Your task to perform on an android device: Clear all items from cart on target.com. Add "macbook pro 13 inch" to the cart on target.com Image 0: 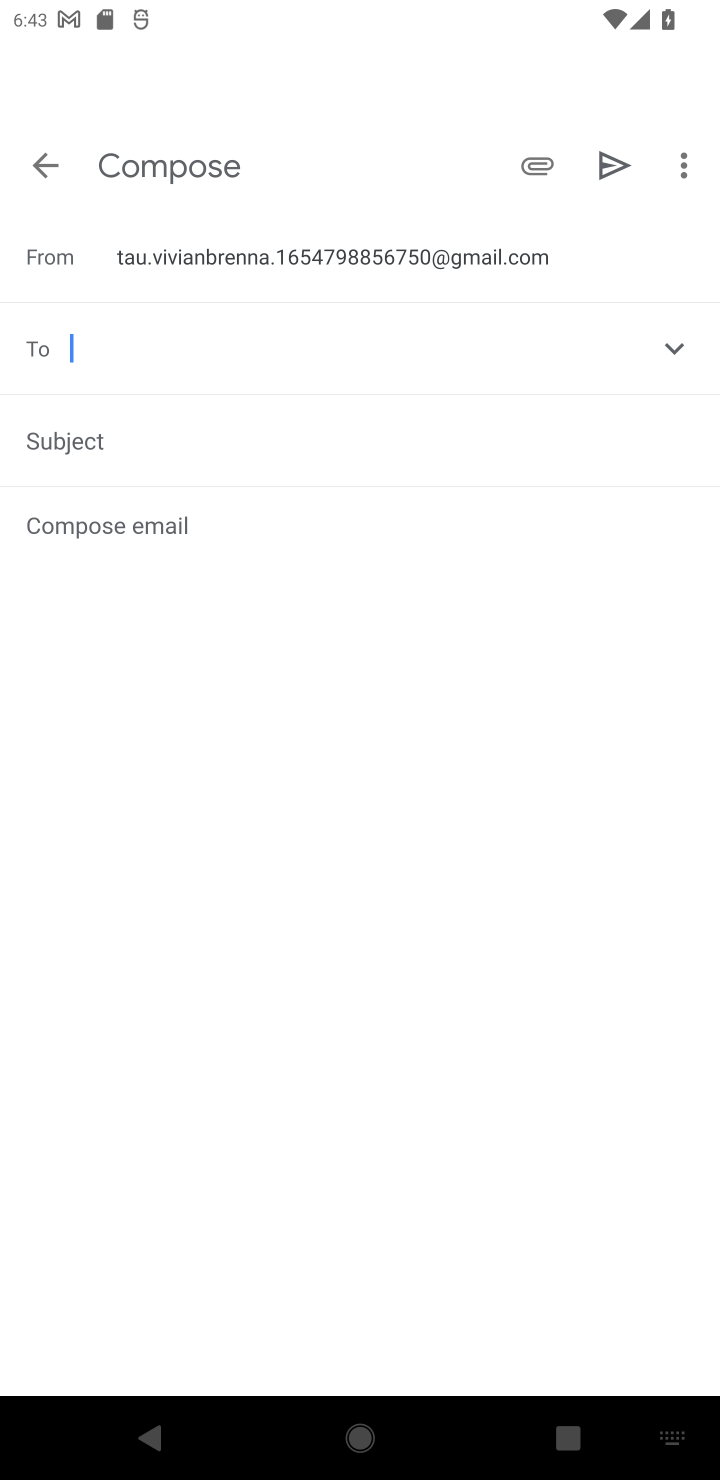
Step 0: press home button
Your task to perform on an android device: Clear all items from cart on target.com. Add "macbook pro 13 inch" to the cart on target.com Image 1: 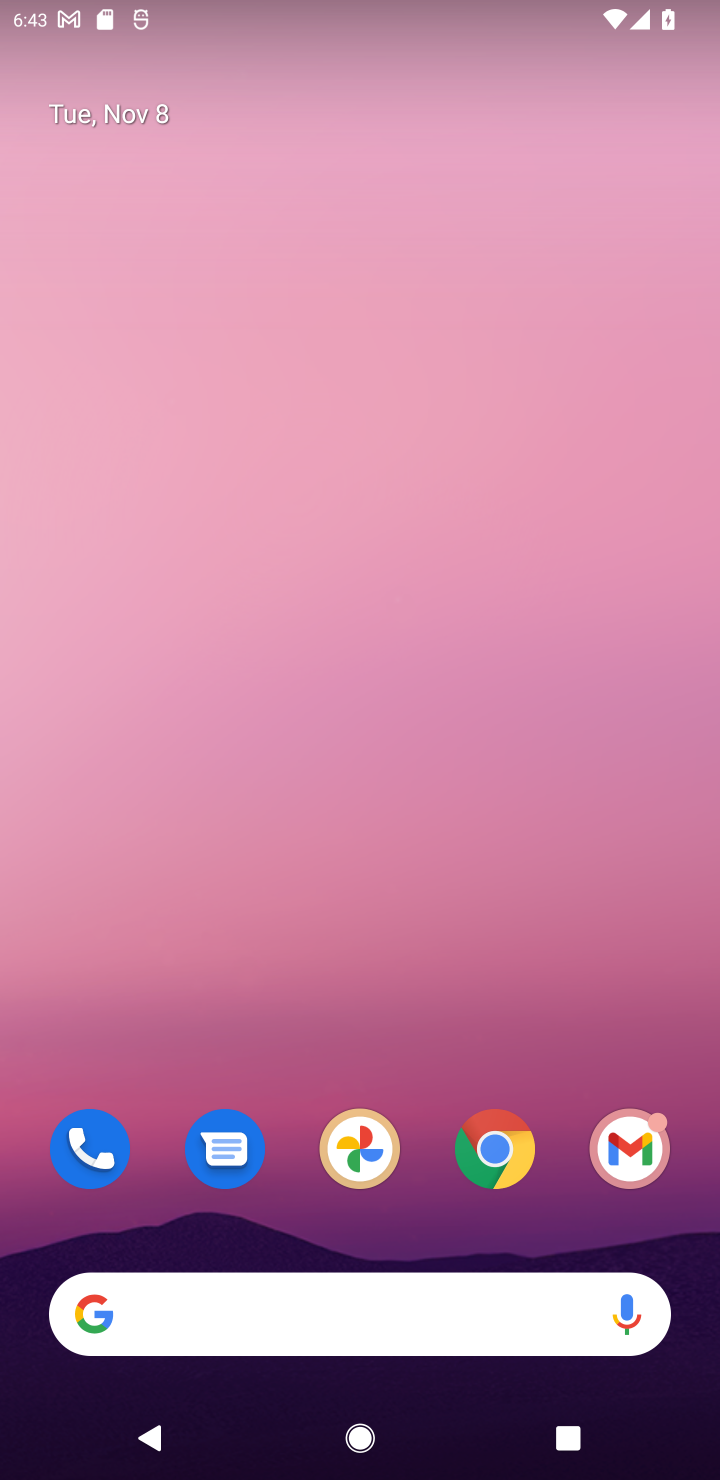
Step 1: click (500, 1153)
Your task to perform on an android device: Clear all items from cart on target.com. Add "macbook pro 13 inch" to the cart on target.com Image 2: 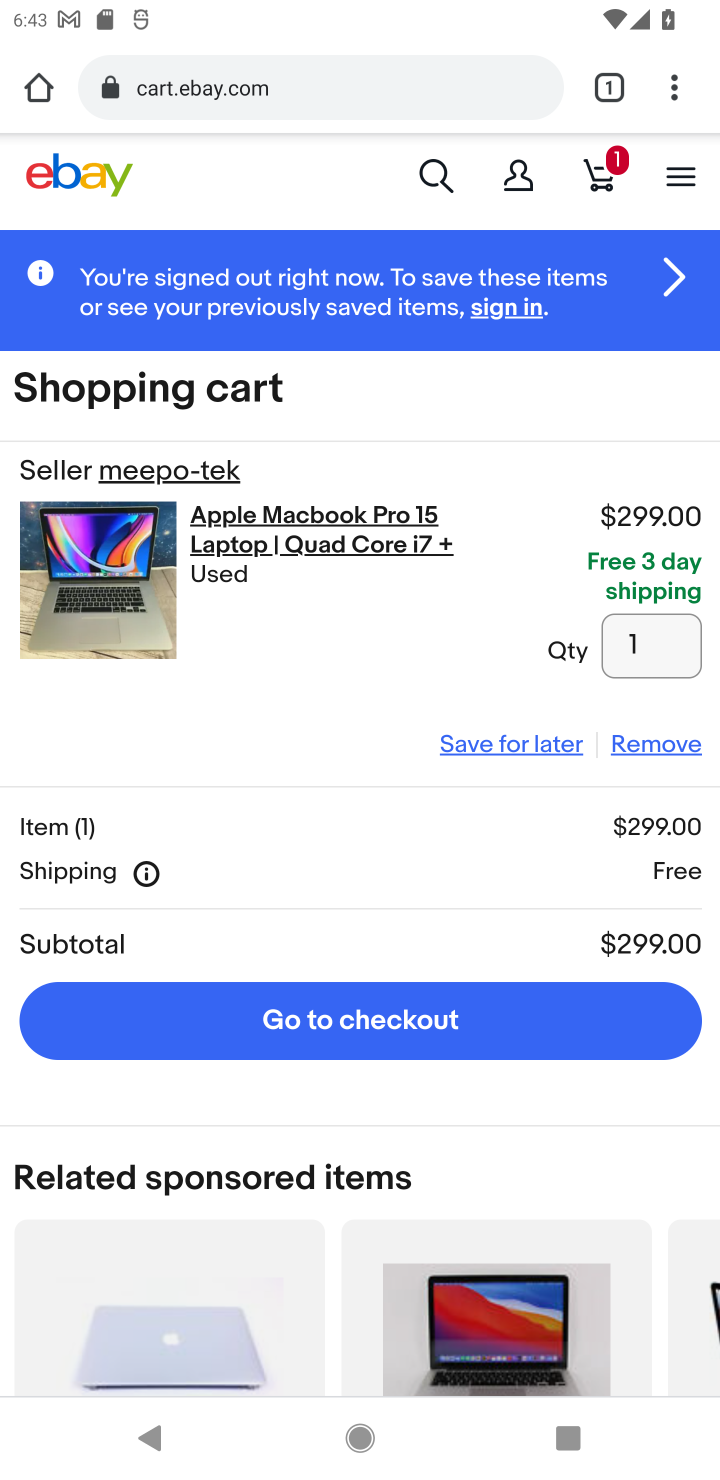
Step 2: click (468, 80)
Your task to perform on an android device: Clear all items from cart on target.com. Add "macbook pro 13 inch" to the cart on target.com Image 3: 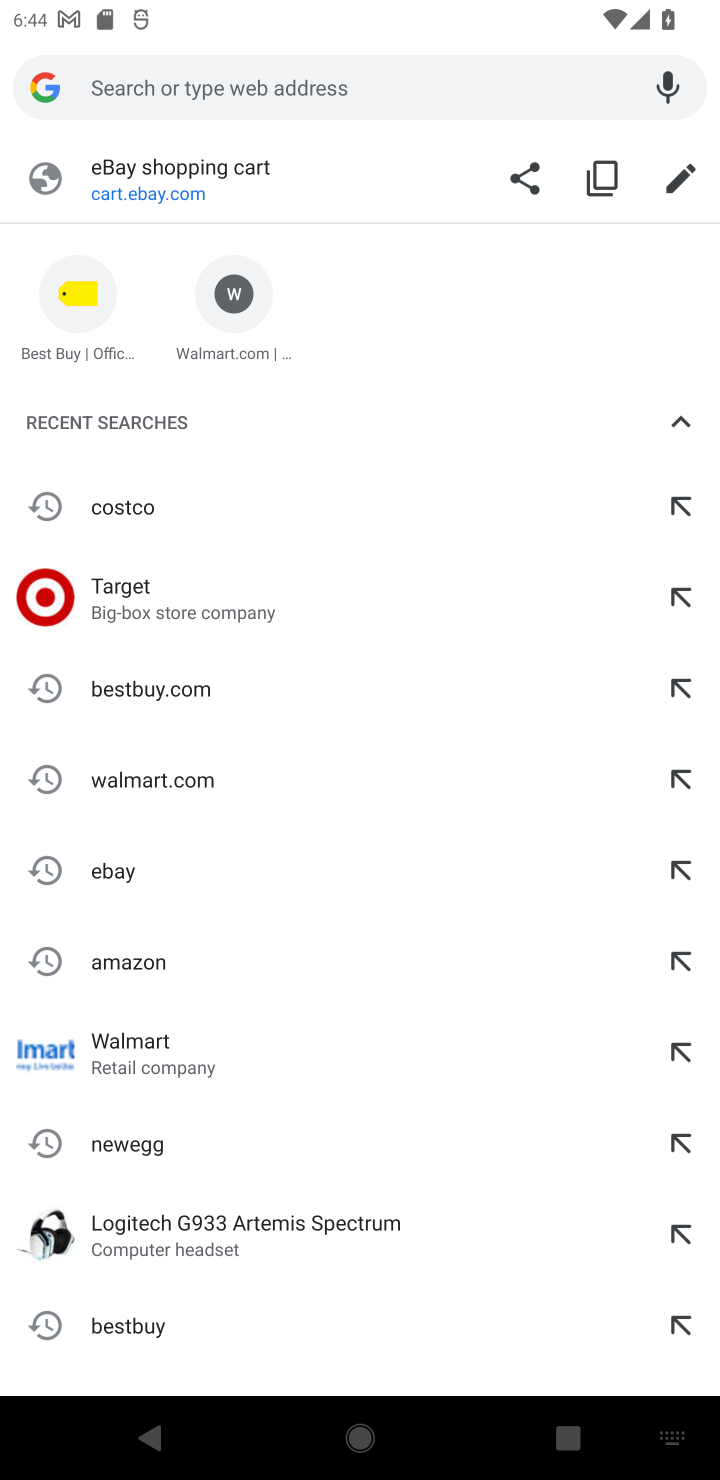
Step 3: type "target.com"
Your task to perform on an android device: Clear all items from cart on target.com. Add "macbook pro 13 inch" to the cart on target.com Image 4: 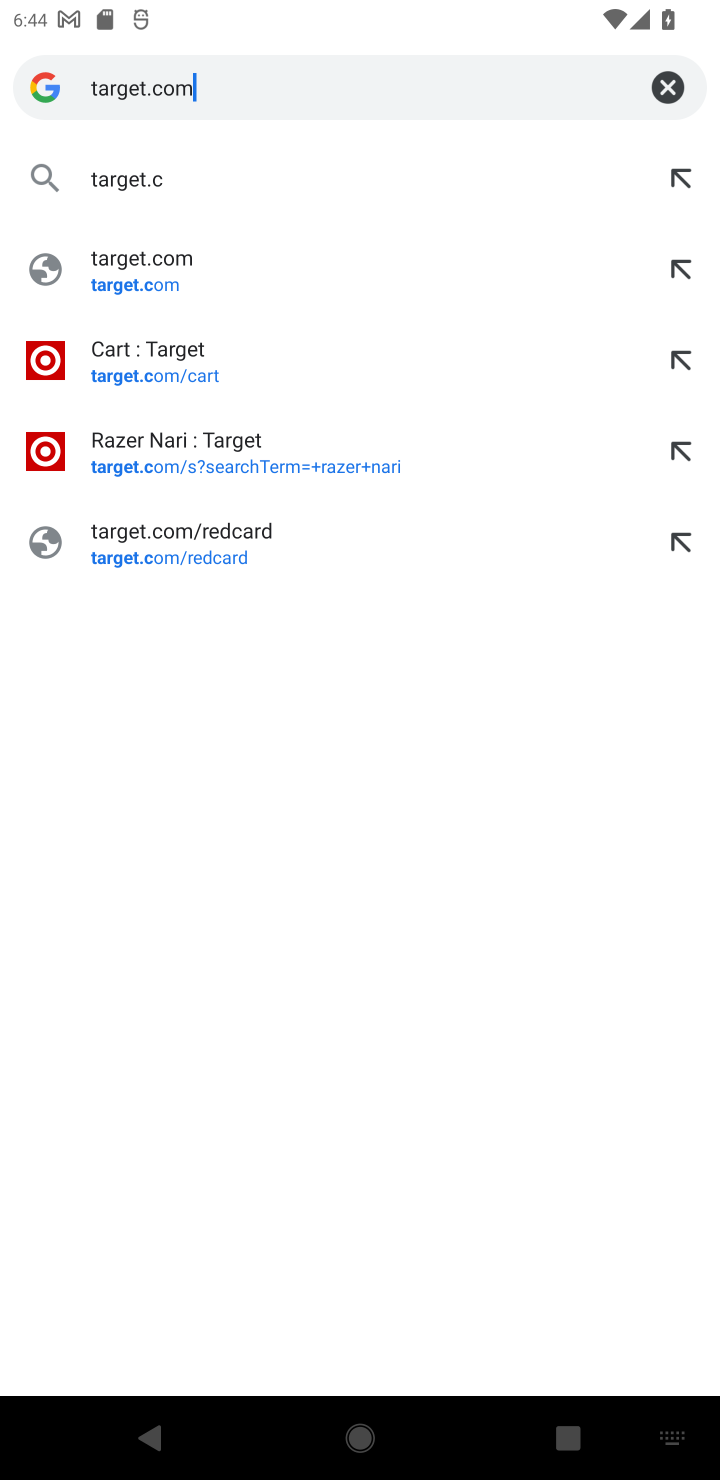
Step 4: press enter
Your task to perform on an android device: Clear all items from cart on target.com. Add "macbook pro 13 inch" to the cart on target.com Image 5: 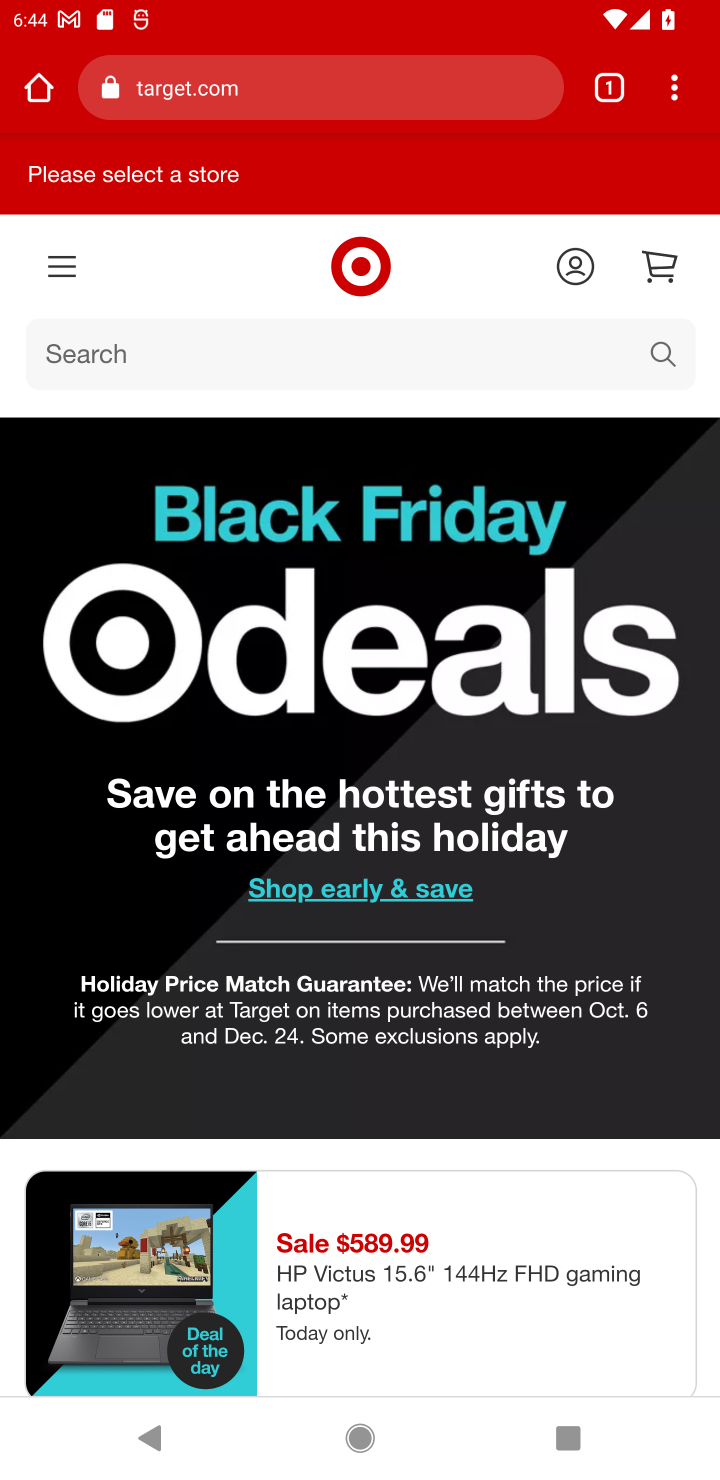
Step 5: click (667, 267)
Your task to perform on an android device: Clear all items from cart on target.com. Add "macbook pro 13 inch" to the cart on target.com Image 6: 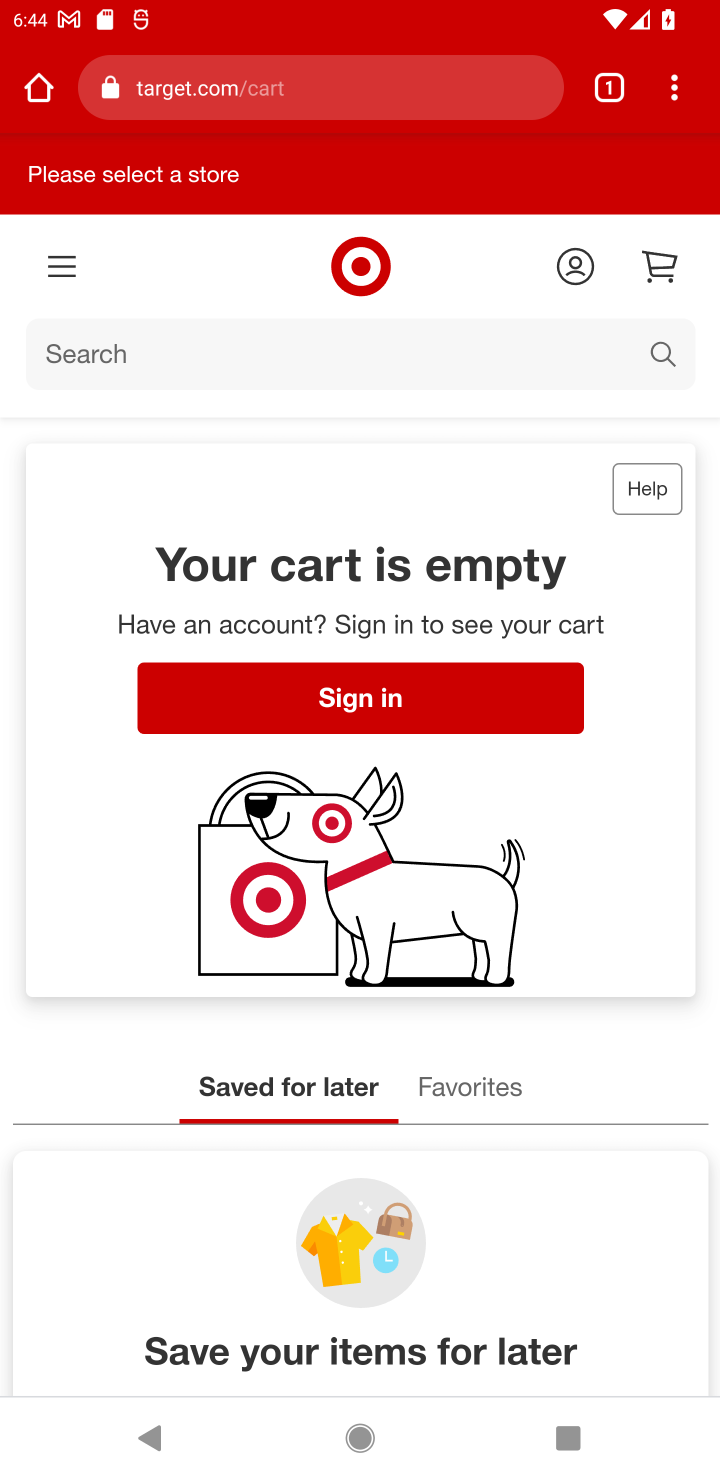
Step 6: click (664, 360)
Your task to perform on an android device: Clear all items from cart on target.com. Add "macbook pro 13 inch" to the cart on target.com Image 7: 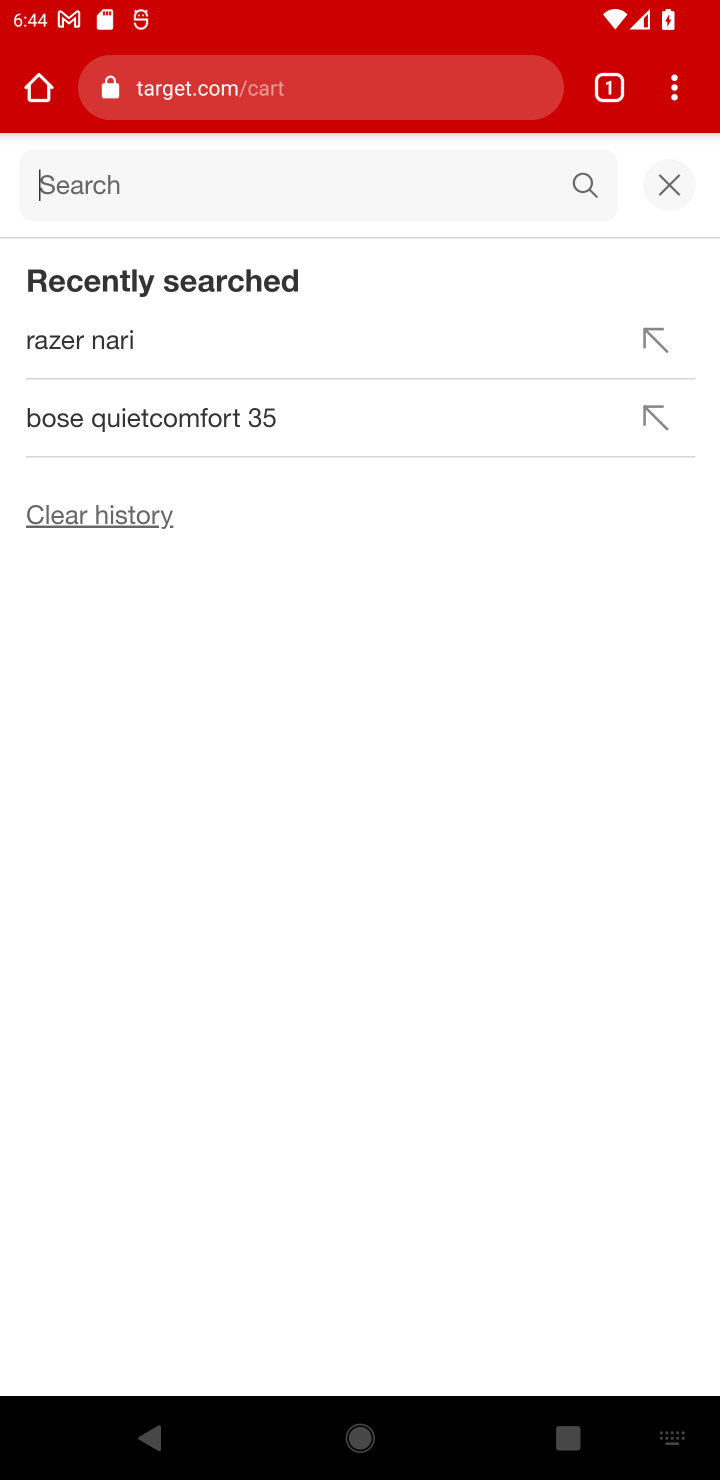
Step 7: press enter
Your task to perform on an android device: Clear all items from cart on target.com. Add "macbook pro 13 inch" to the cart on target.com Image 8: 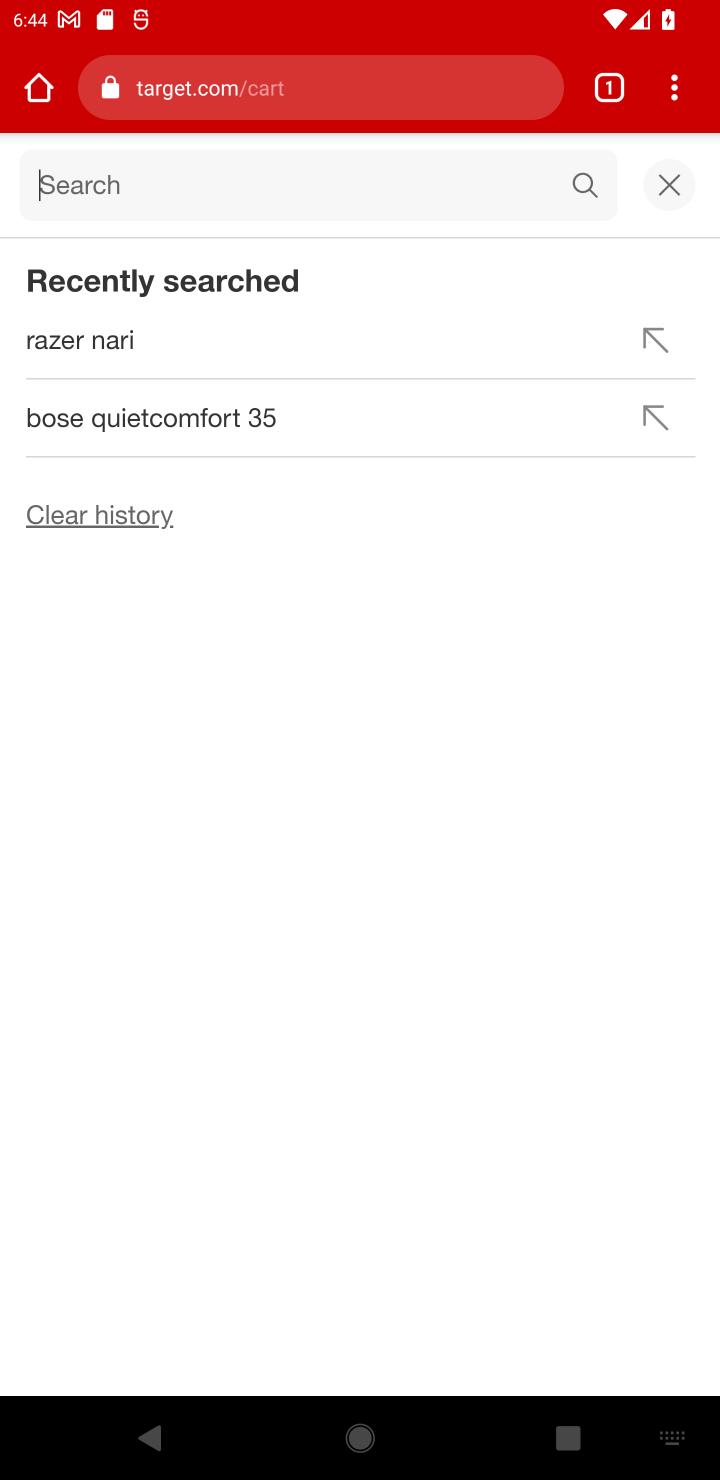
Step 8: type "macbook pro 13 inch"
Your task to perform on an android device: Clear all items from cart on target.com. Add "macbook pro 13 inch" to the cart on target.com Image 9: 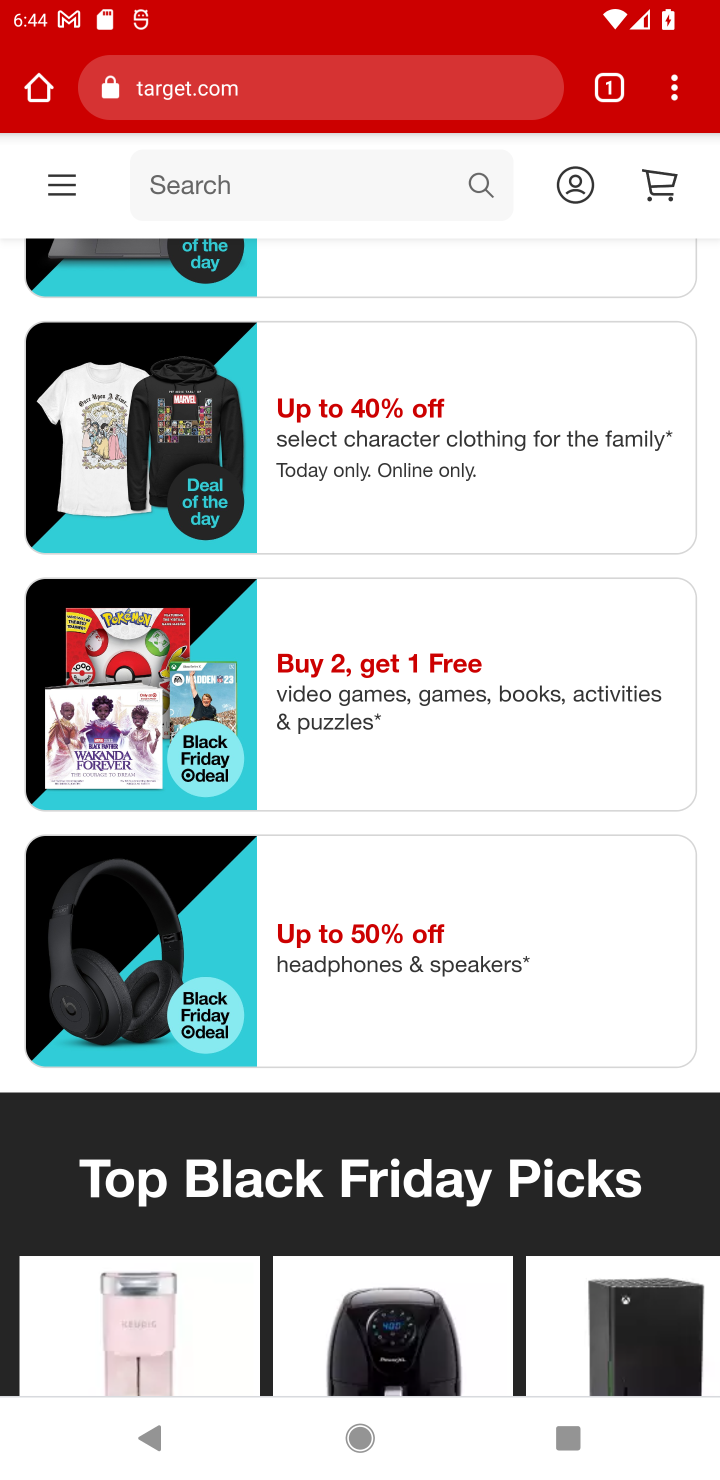
Step 9: click (465, 176)
Your task to perform on an android device: Clear all items from cart on target.com. Add "macbook pro 13 inch" to the cart on target.com Image 10: 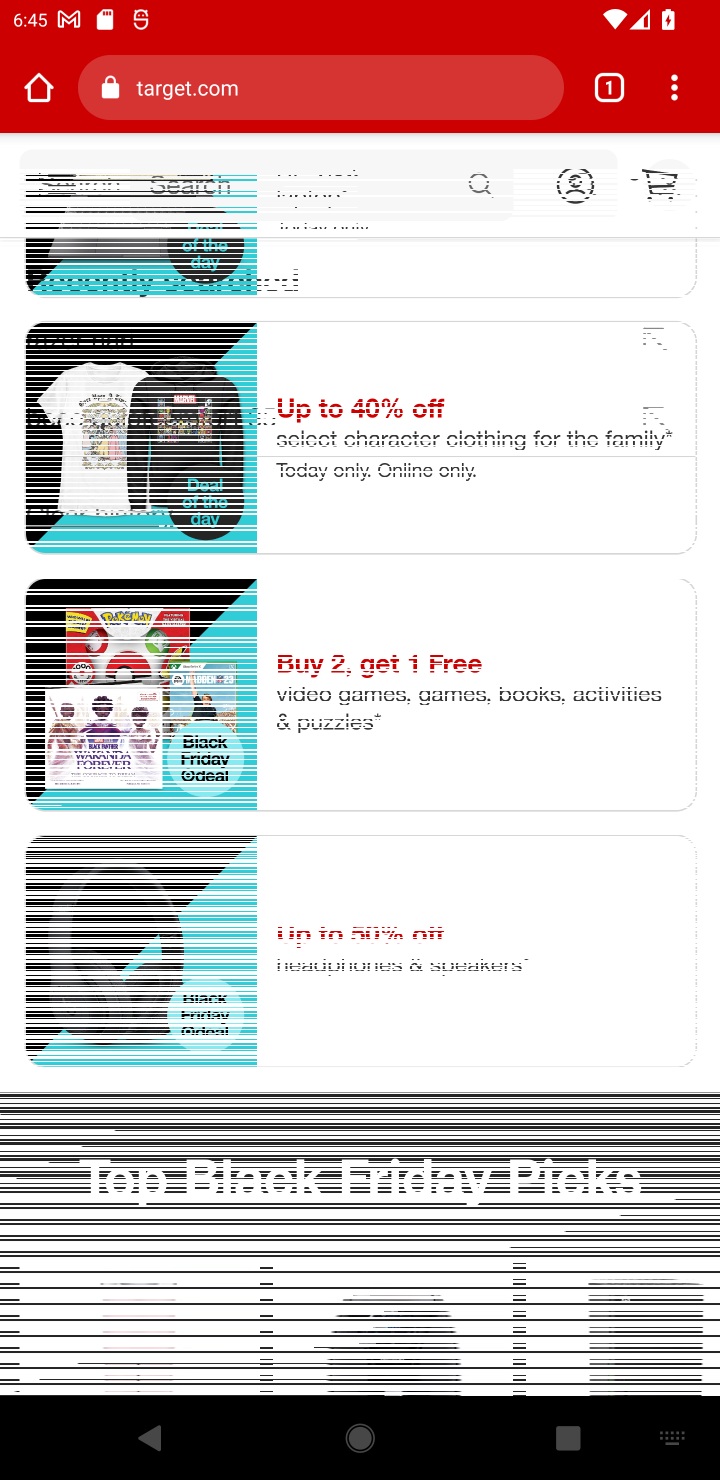
Step 10: press enter
Your task to perform on an android device: Clear all items from cart on target.com. Add "macbook pro 13 inch" to the cart on target.com Image 11: 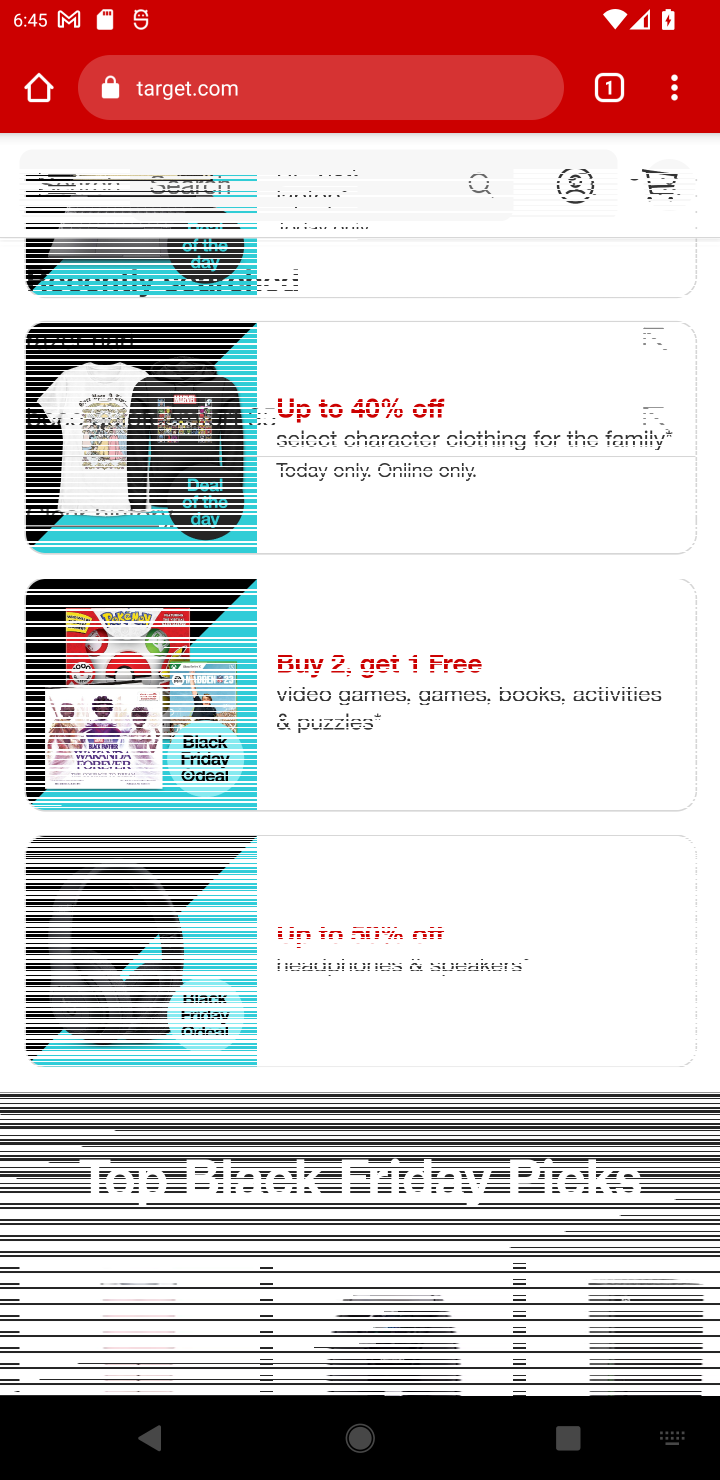
Step 11: type "macbook pro 13 inch"
Your task to perform on an android device: Clear all items from cart on target.com. Add "macbook pro 13 inch" to the cart on target.com Image 12: 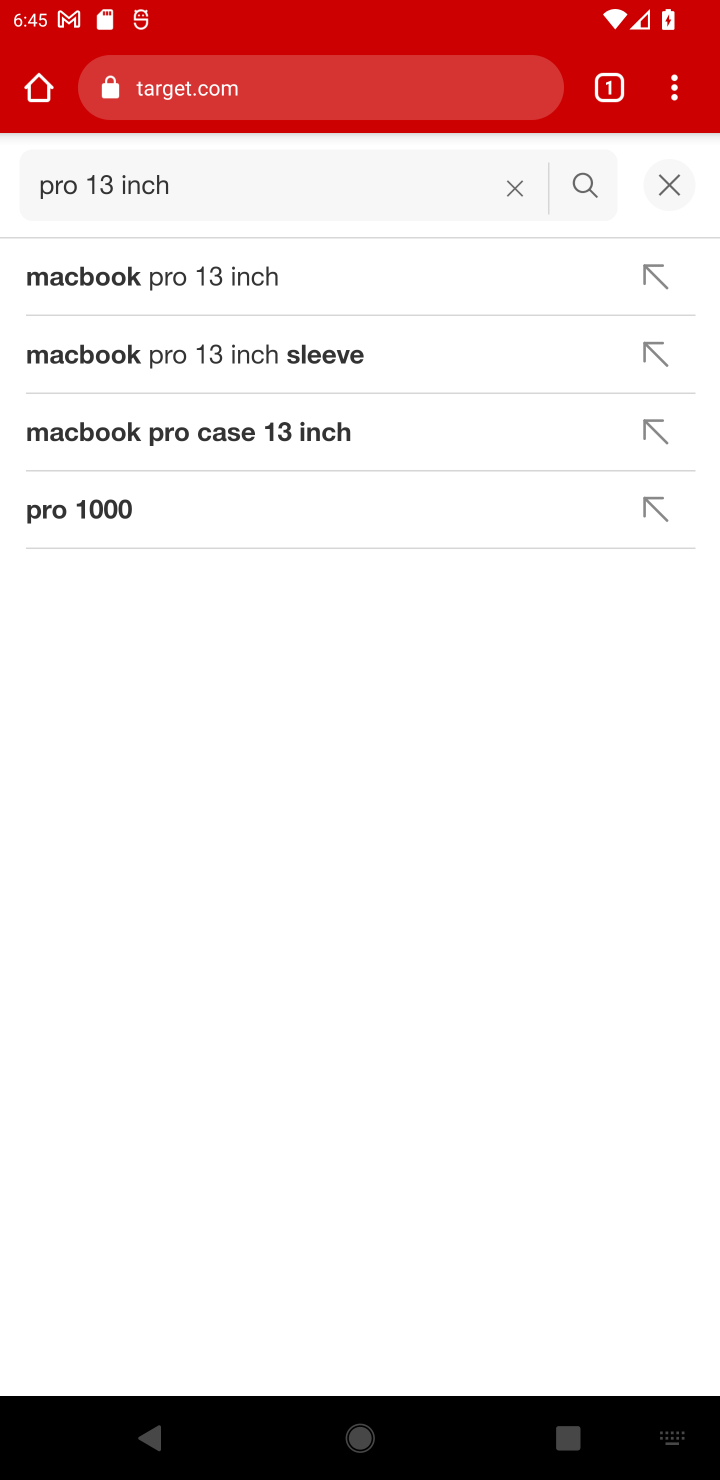
Step 12: click (199, 272)
Your task to perform on an android device: Clear all items from cart on target.com. Add "macbook pro 13 inch" to the cart on target.com Image 13: 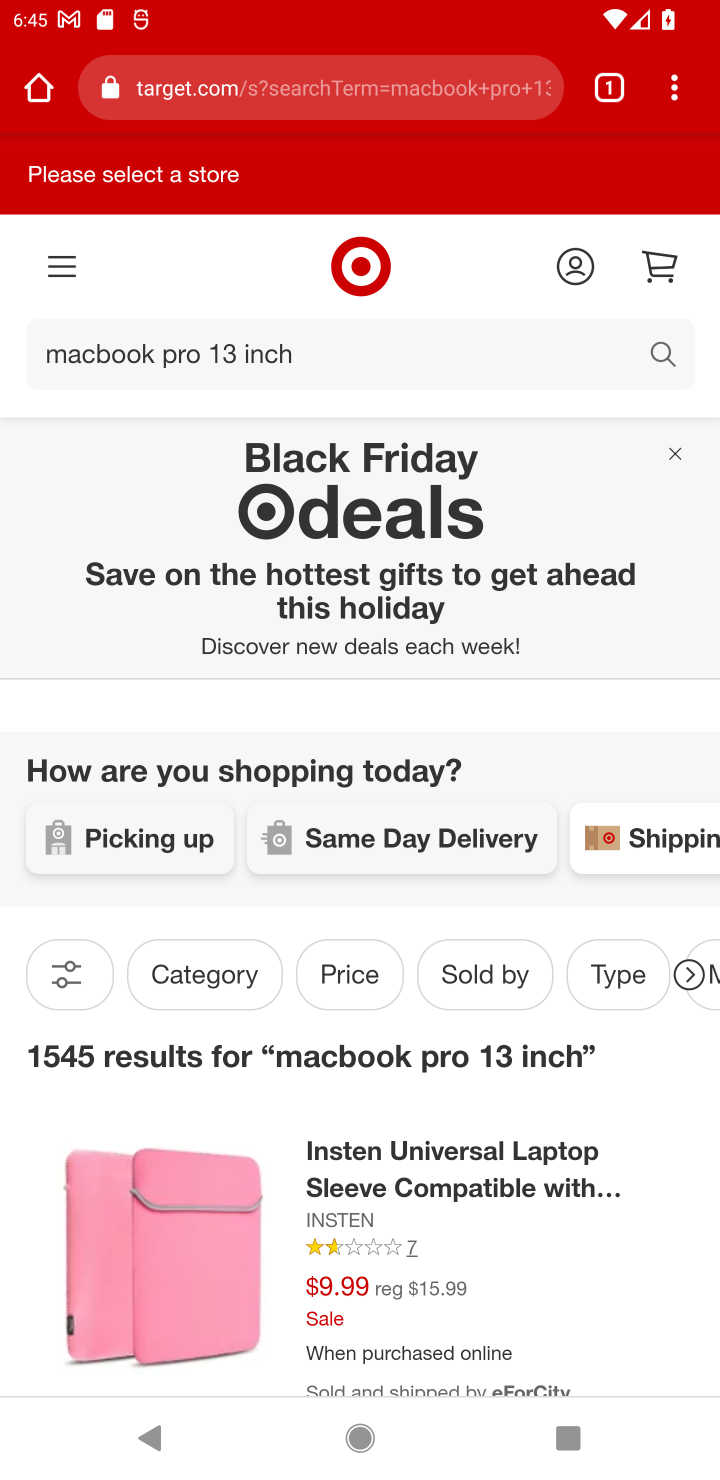
Step 13: task complete